Your task to perform on an android device: What's the news about the US? Image 0: 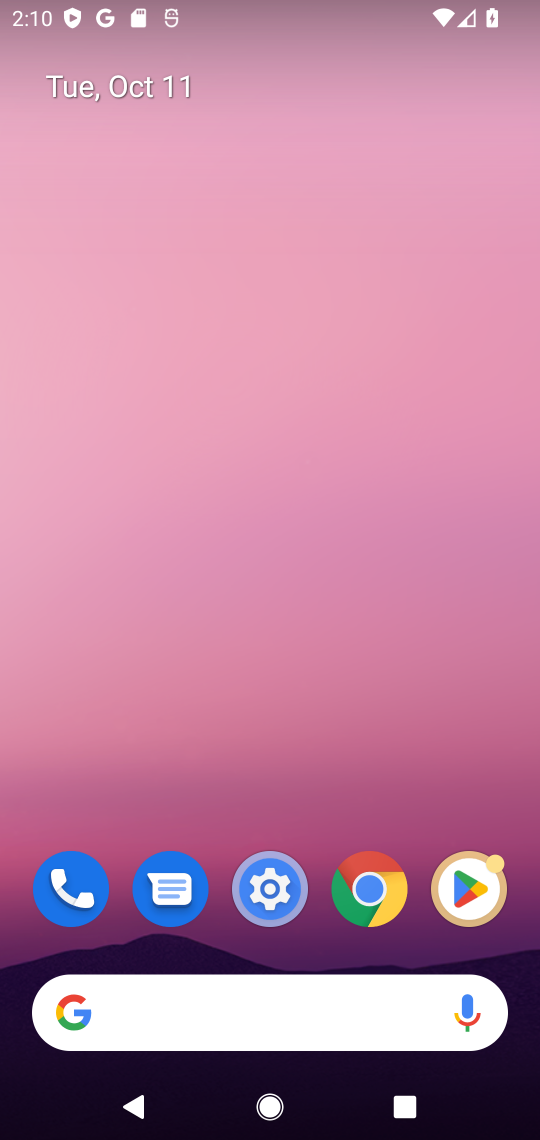
Step 0: drag from (229, 960) to (244, 223)
Your task to perform on an android device: What's the news about the US? Image 1: 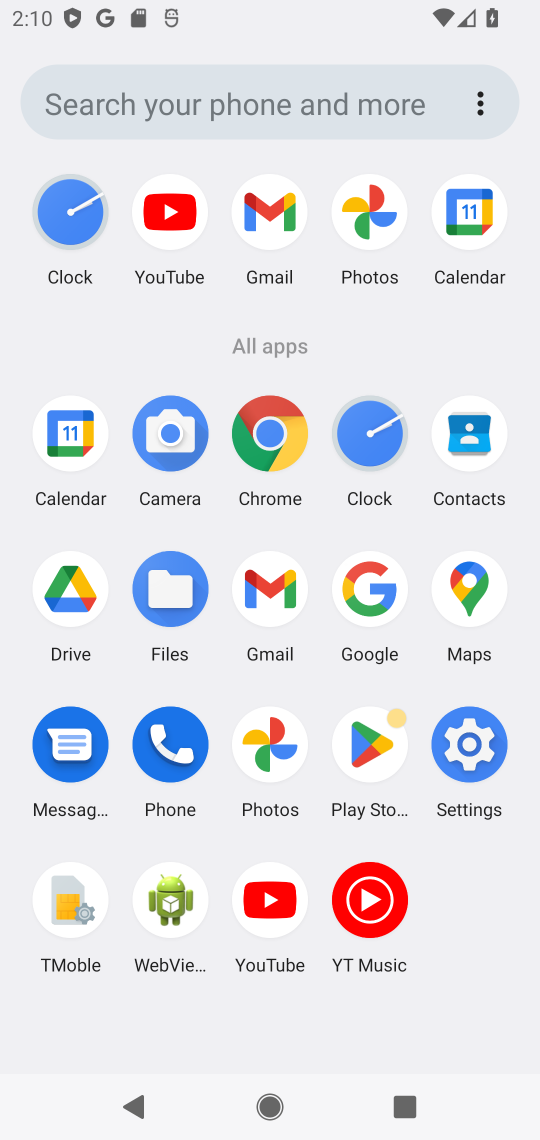
Step 1: click (375, 574)
Your task to perform on an android device: What's the news about the US? Image 2: 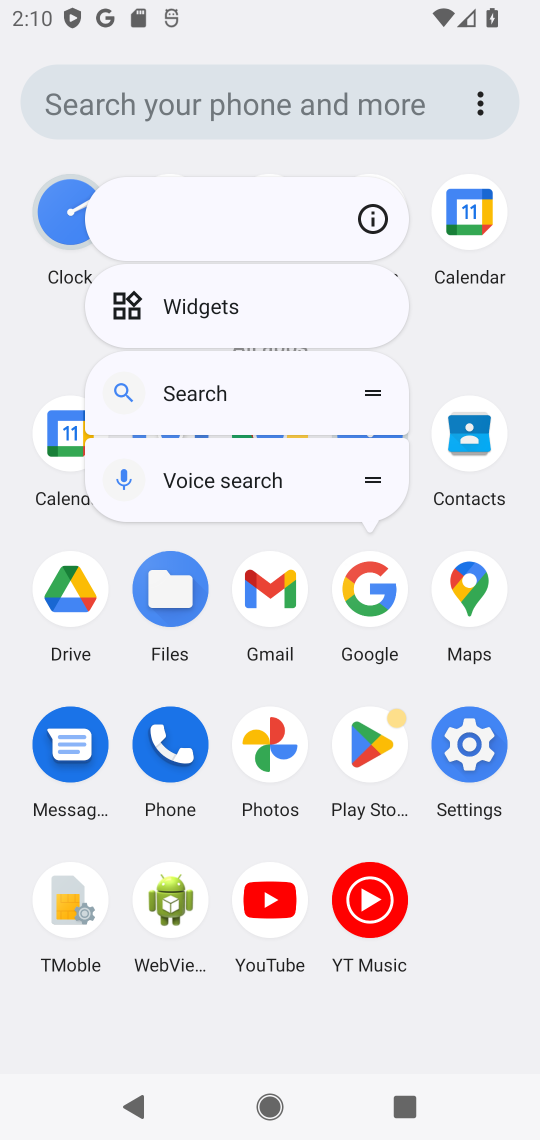
Step 2: click (375, 574)
Your task to perform on an android device: What's the news about the US? Image 3: 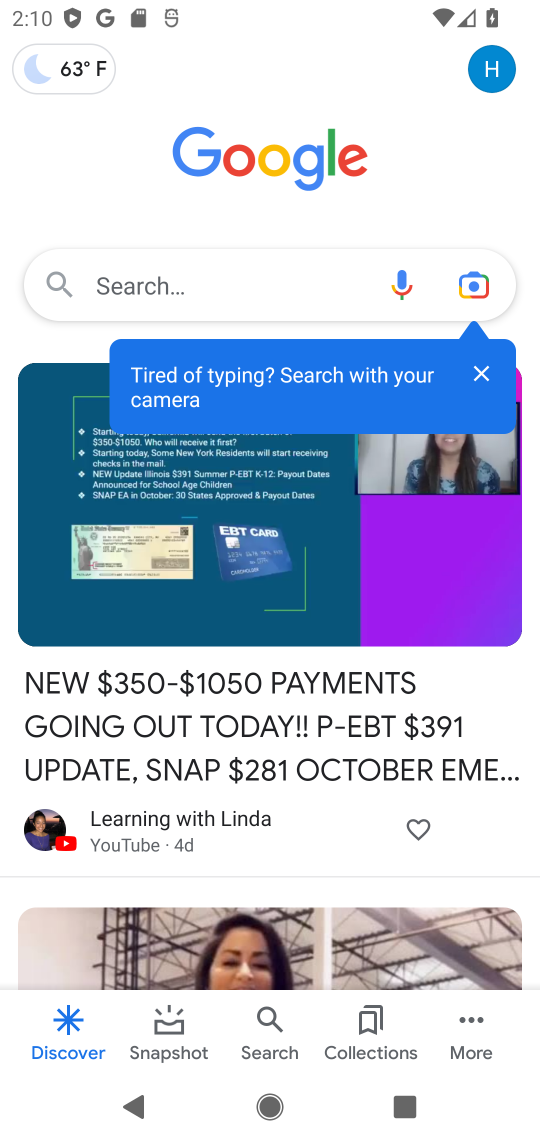
Step 3: click (246, 272)
Your task to perform on an android device: What's the news about the US? Image 4: 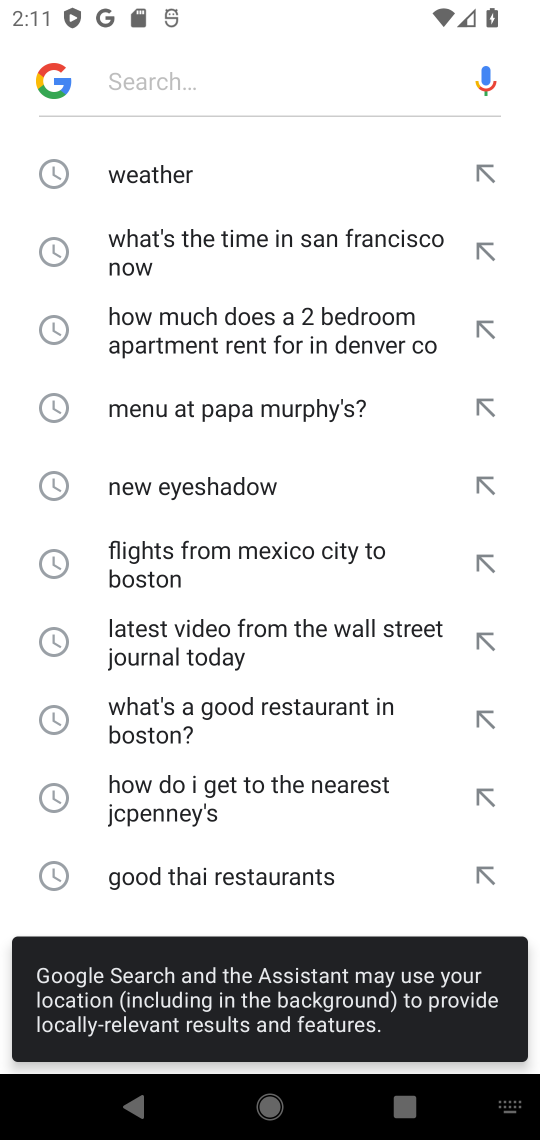
Step 4: type "What's the news about the US? "
Your task to perform on an android device: What's the news about the US? Image 5: 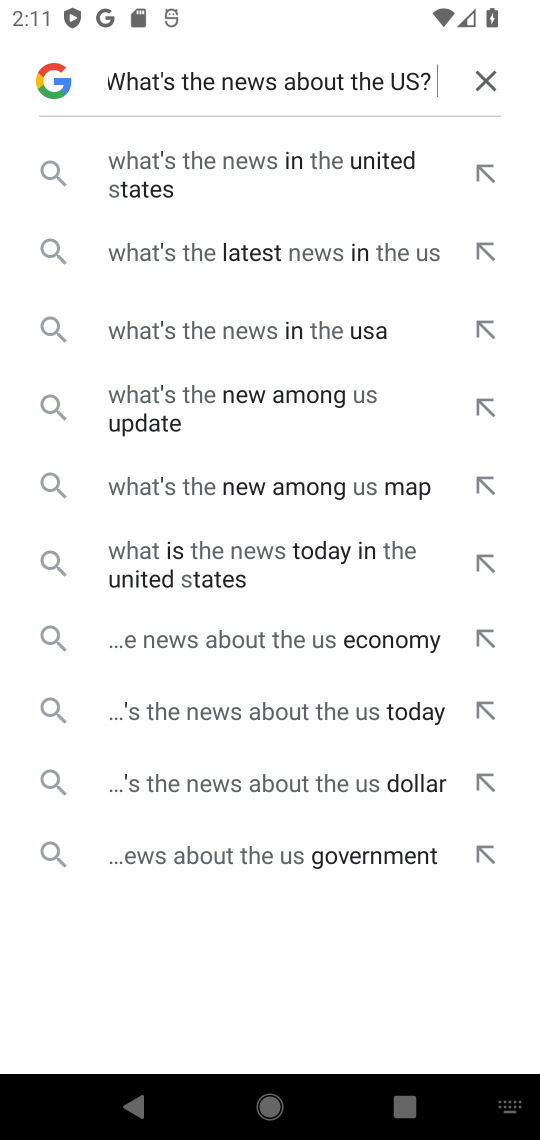
Step 5: click (283, 175)
Your task to perform on an android device: What's the news about the US? Image 6: 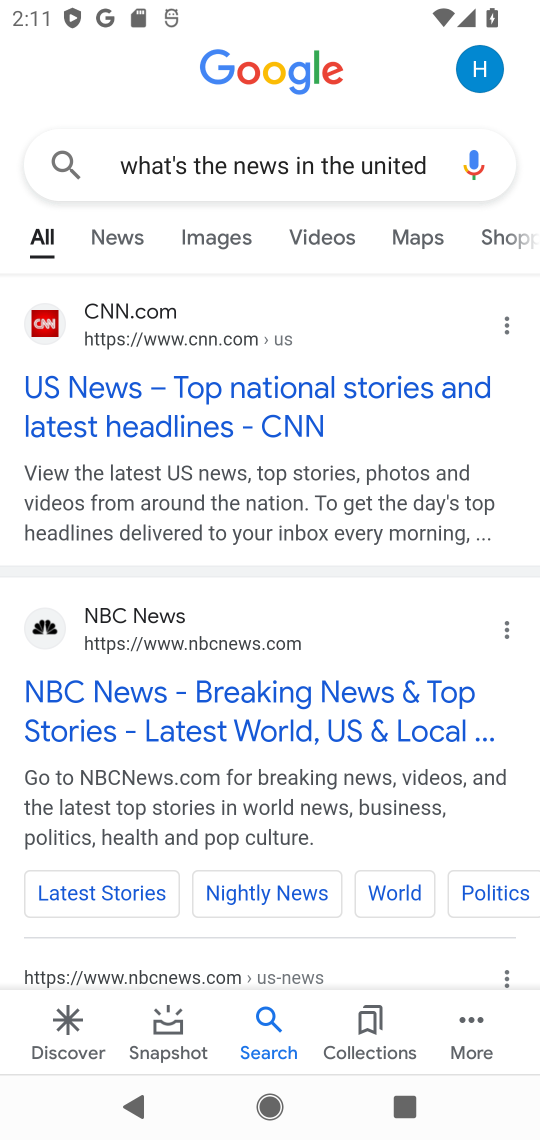
Step 6: click (291, 376)
Your task to perform on an android device: What's the news about the US? Image 7: 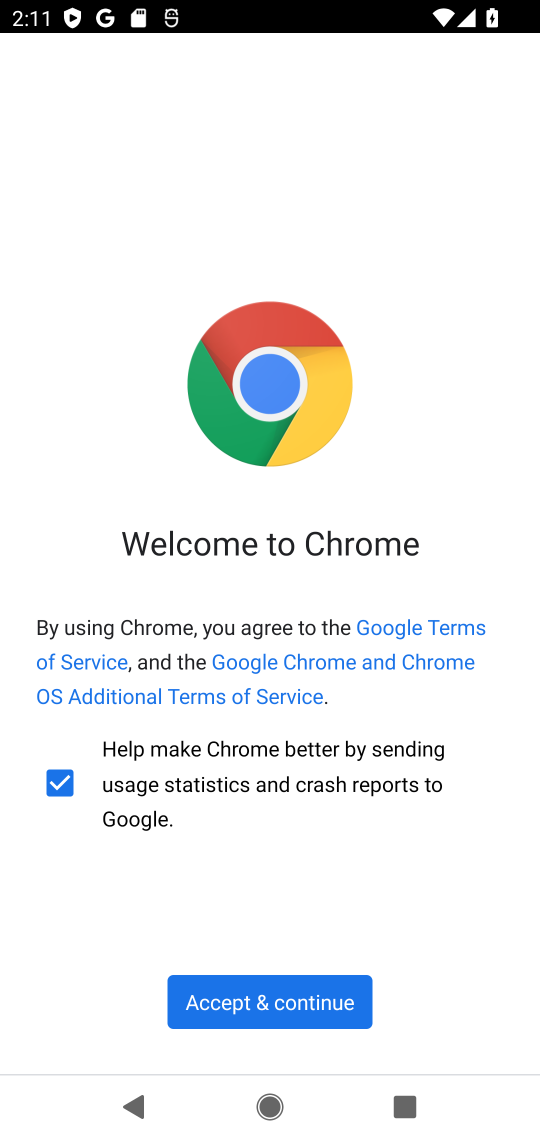
Step 7: click (213, 1008)
Your task to perform on an android device: What's the news about the US? Image 8: 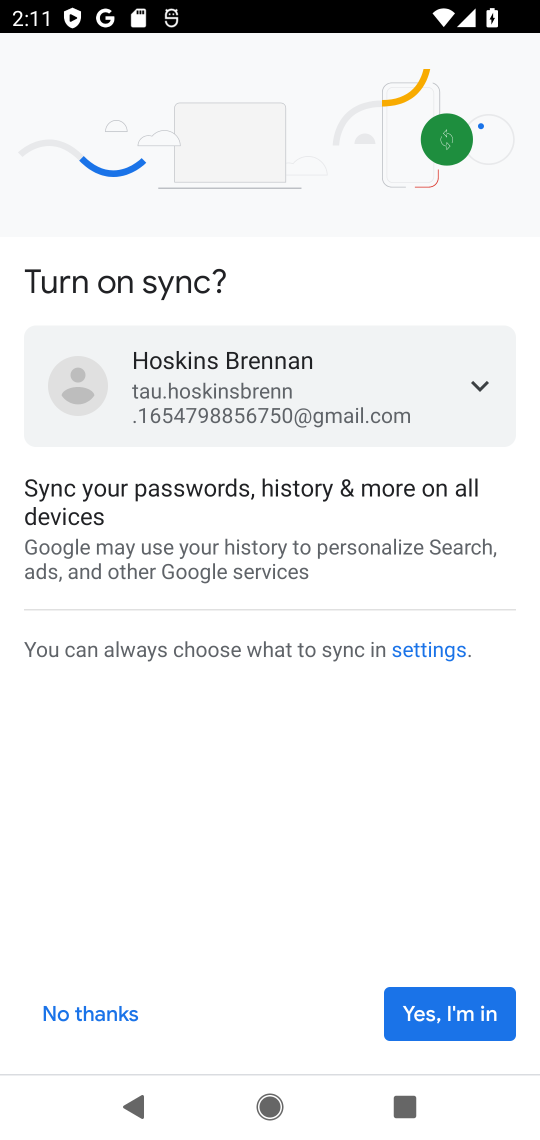
Step 8: click (474, 1017)
Your task to perform on an android device: What's the news about the US? Image 9: 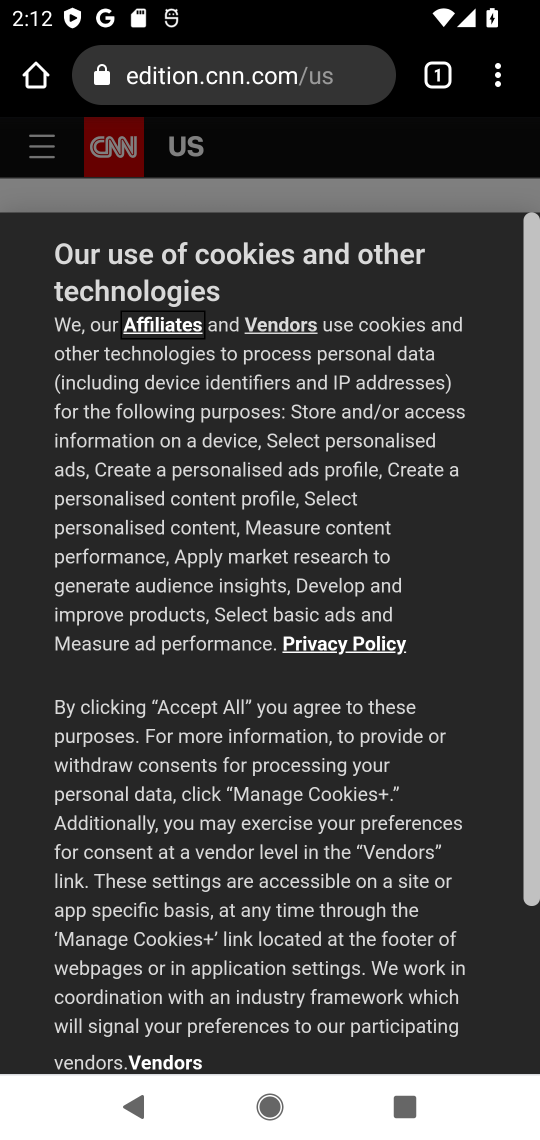
Step 9: click (280, 188)
Your task to perform on an android device: What's the news about the US? Image 10: 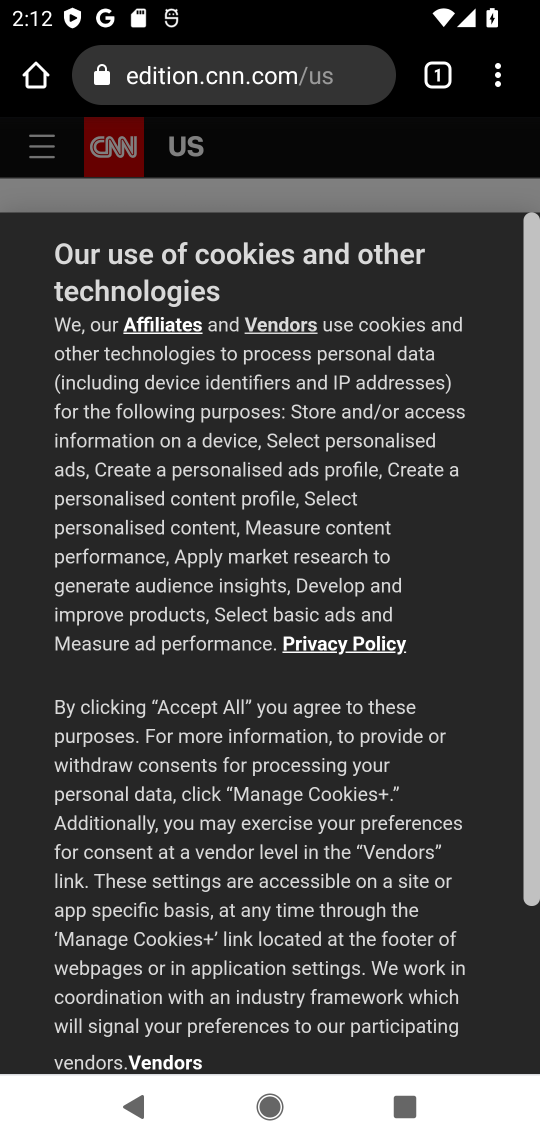
Step 10: drag from (256, 959) to (379, 277)
Your task to perform on an android device: What's the news about the US? Image 11: 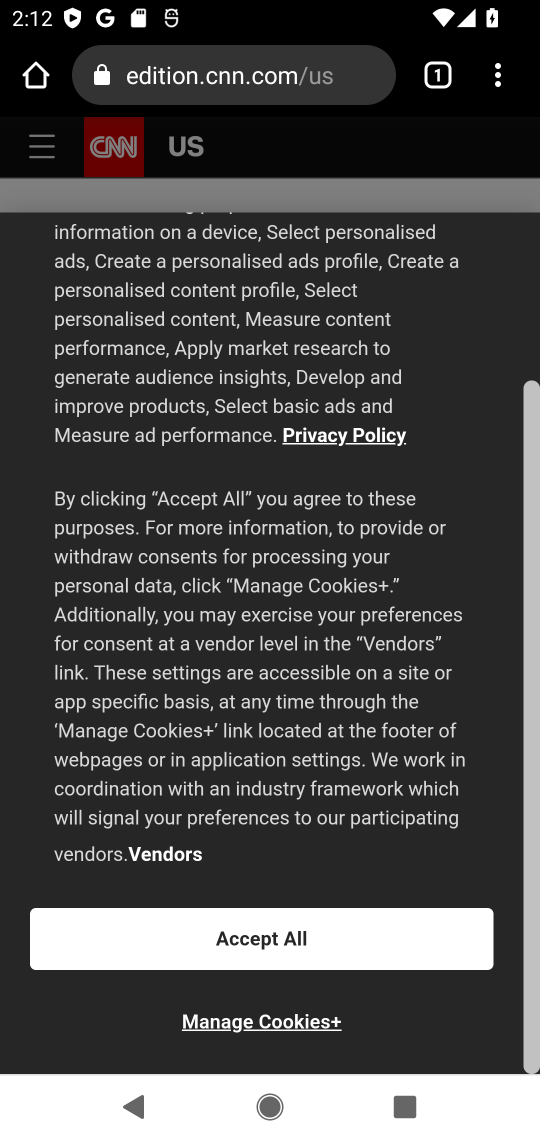
Step 11: click (295, 947)
Your task to perform on an android device: What's the news about the US? Image 12: 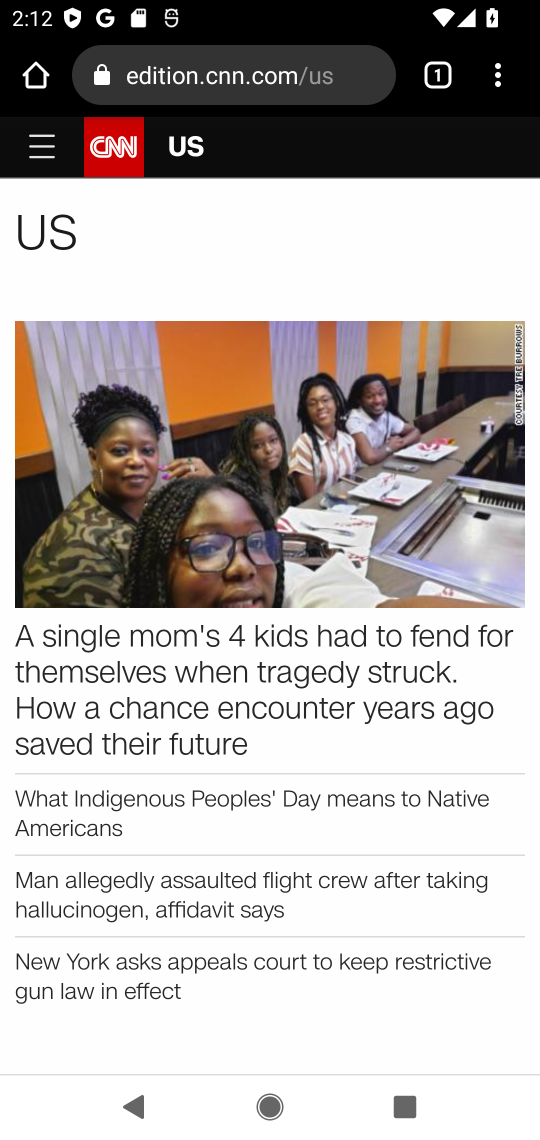
Step 12: task complete